Your task to perform on an android device: open a new tab in the chrome app Image 0: 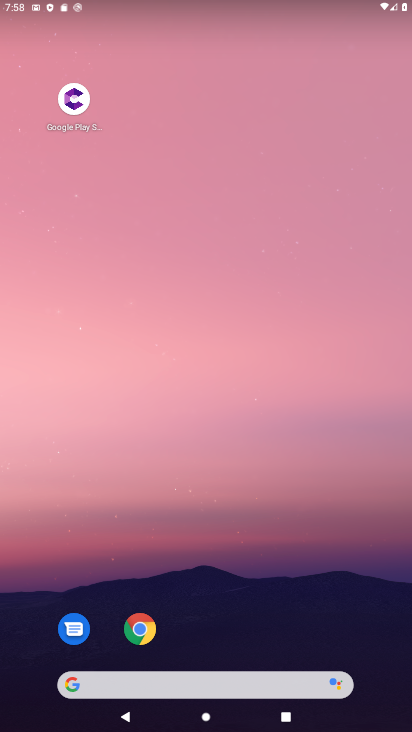
Step 0: click (128, 636)
Your task to perform on an android device: open a new tab in the chrome app Image 1: 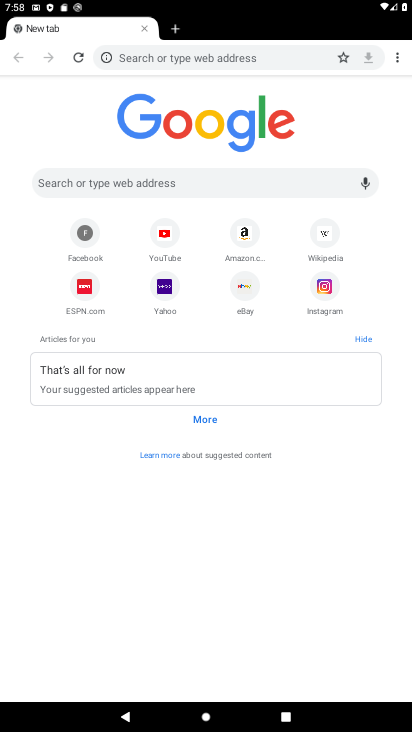
Step 1: click (175, 32)
Your task to perform on an android device: open a new tab in the chrome app Image 2: 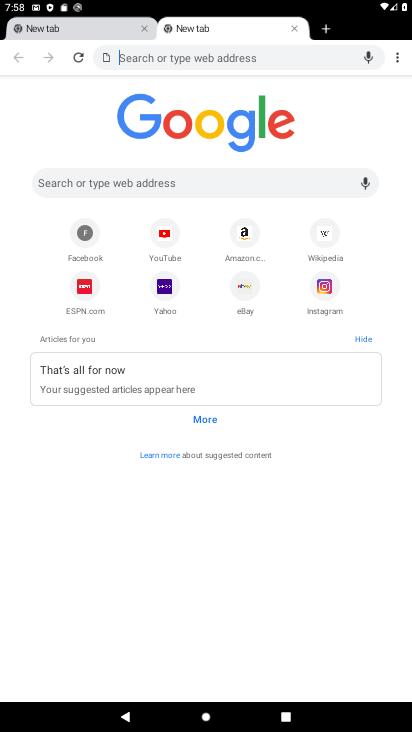
Step 2: task complete